Your task to perform on an android device: check out phone information Image 0: 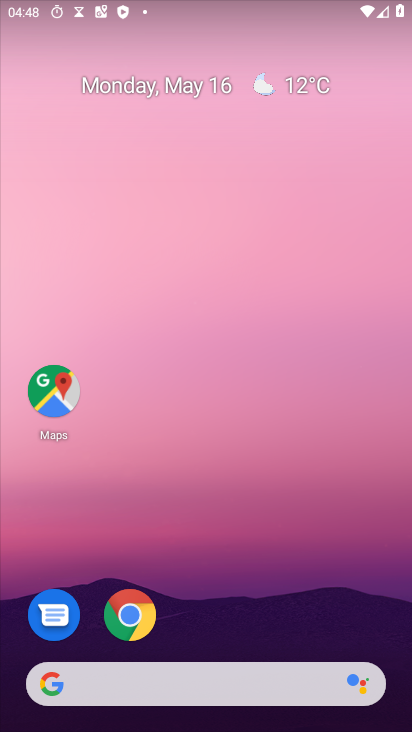
Step 0: drag from (359, 644) to (179, 62)
Your task to perform on an android device: check out phone information Image 1: 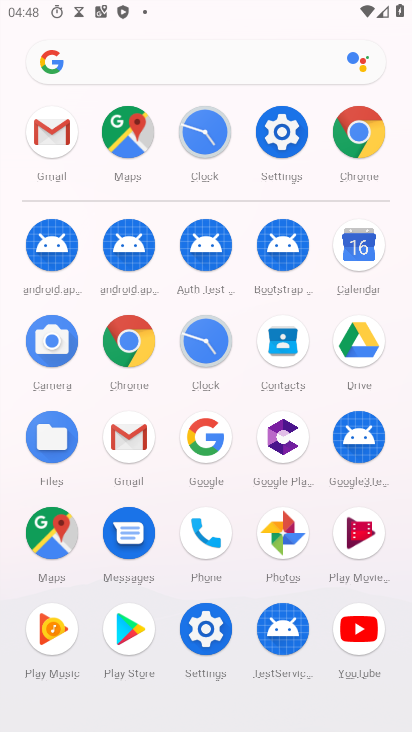
Step 1: click (287, 131)
Your task to perform on an android device: check out phone information Image 2: 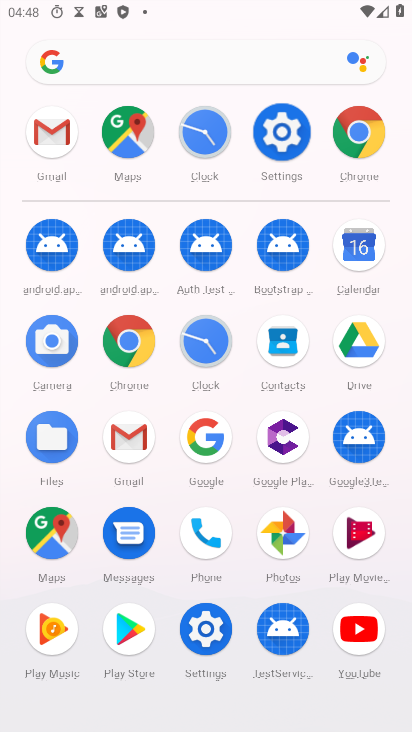
Step 2: click (287, 133)
Your task to perform on an android device: check out phone information Image 3: 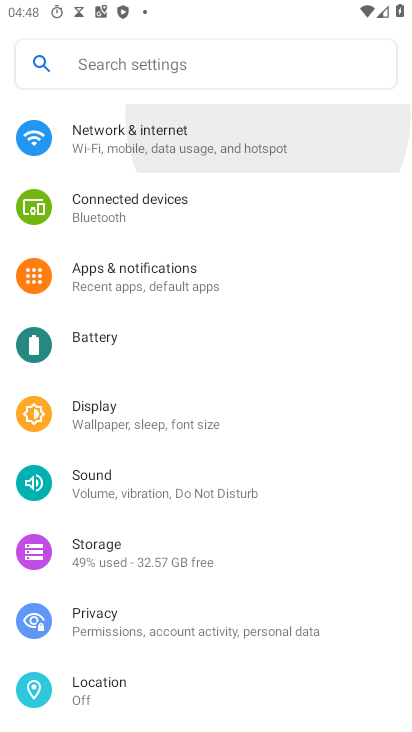
Step 3: click (289, 135)
Your task to perform on an android device: check out phone information Image 4: 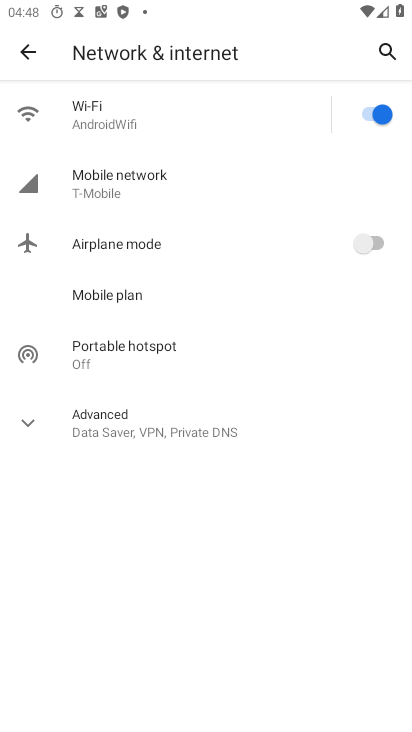
Step 4: click (29, 45)
Your task to perform on an android device: check out phone information Image 5: 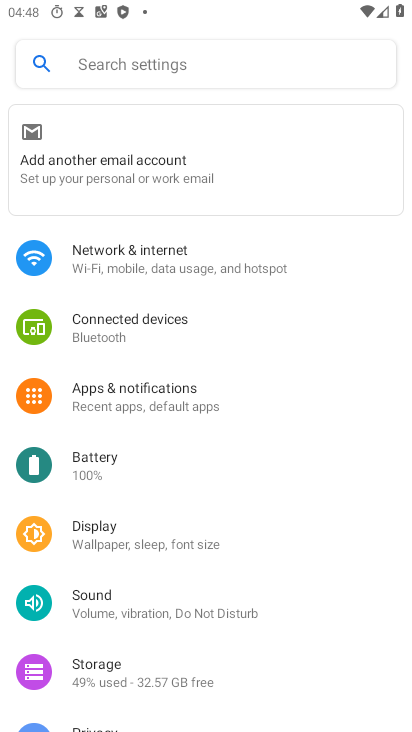
Step 5: drag from (140, 537) to (34, 114)
Your task to perform on an android device: check out phone information Image 6: 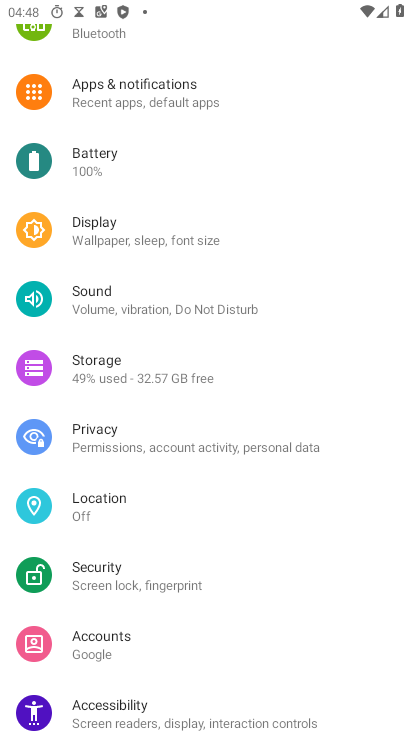
Step 6: drag from (161, 416) to (113, 225)
Your task to perform on an android device: check out phone information Image 7: 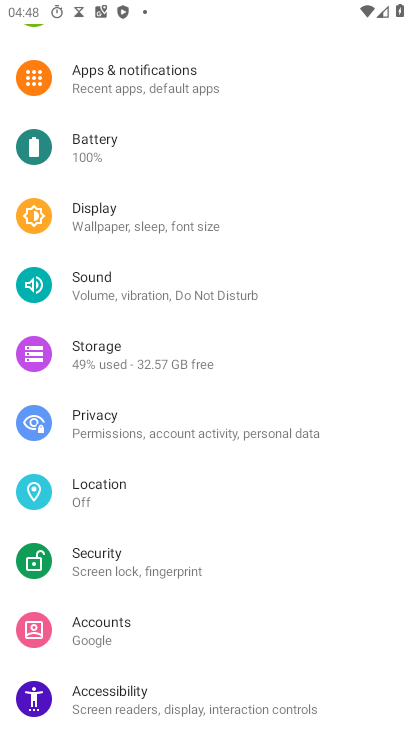
Step 7: drag from (153, 569) to (77, 349)
Your task to perform on an android device: check out phone information Image 8: 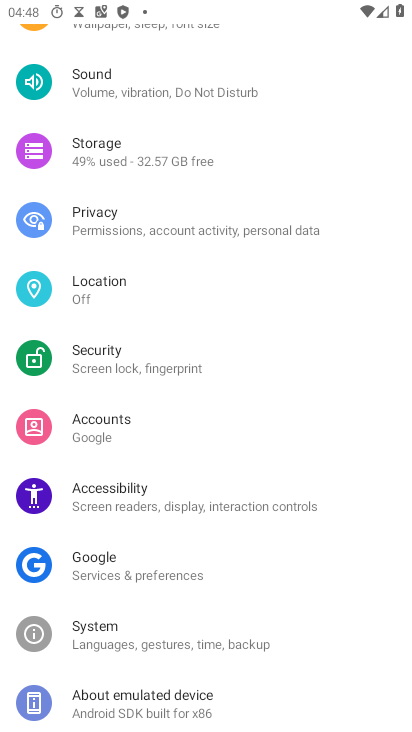
Step 8: drag from (157, 518) to (171, 214)
Your task to perform on an android device: check out phone information Image 9: 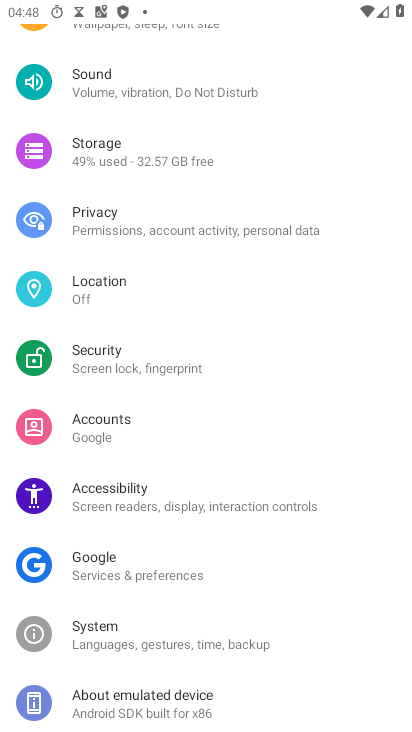
Step 9: click (135, 705)
Your task to perform on an android device: check out phone information Image 10: 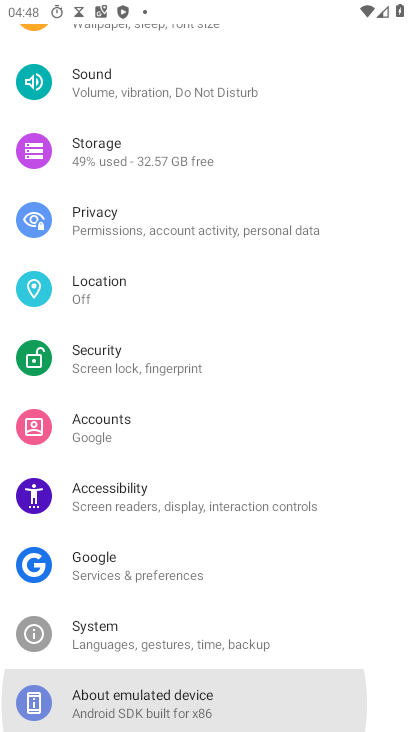
Step 10: click (135, 707)
Your task to perform on an android device: check out phone information Image 11: 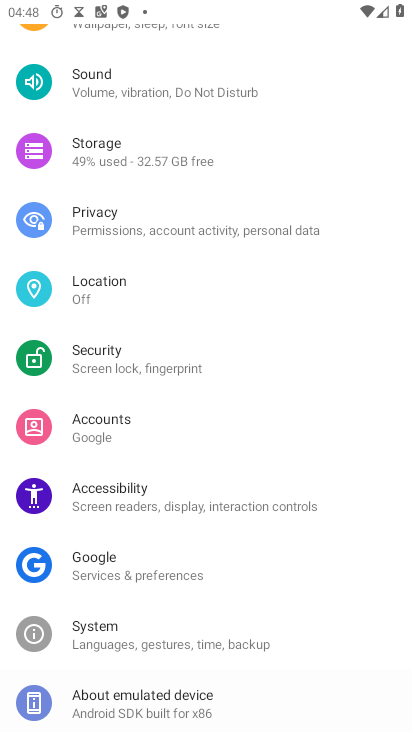
Step 11: click (135, 695)
Your task to perform on an android device: check out phone information Image 12: 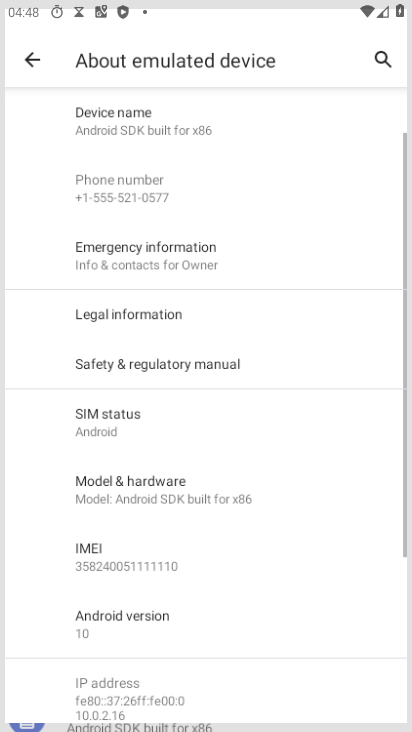
Step 12: click (135, 695)
Your task to perform on an android device: check out phone information Image 13: 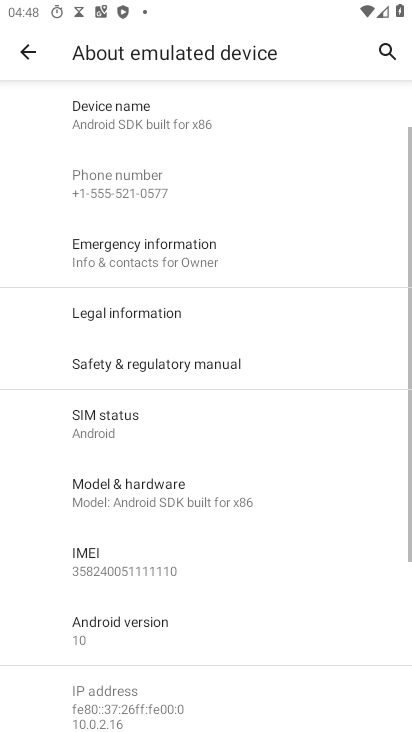
Step 13: click (131, 702)
Your task to perform on an android device: check out phone information Image 14: 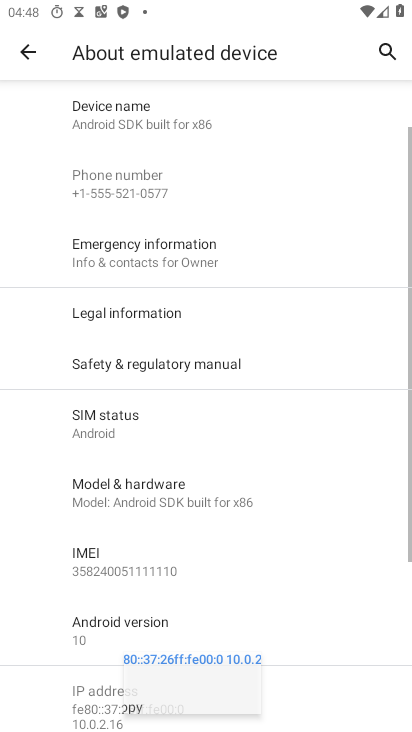
Step 14: click (126, 696)
Your task to perform on an android device: check out phone information Image 15: 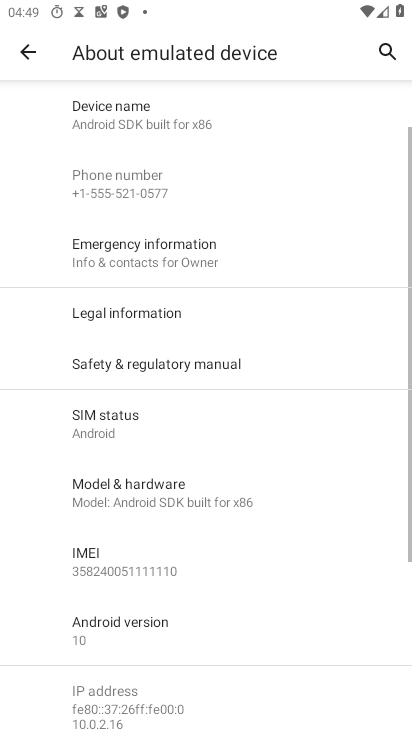
Step 15: task complete